Your task to perform on an android device: Open Google Chrome Image 0: 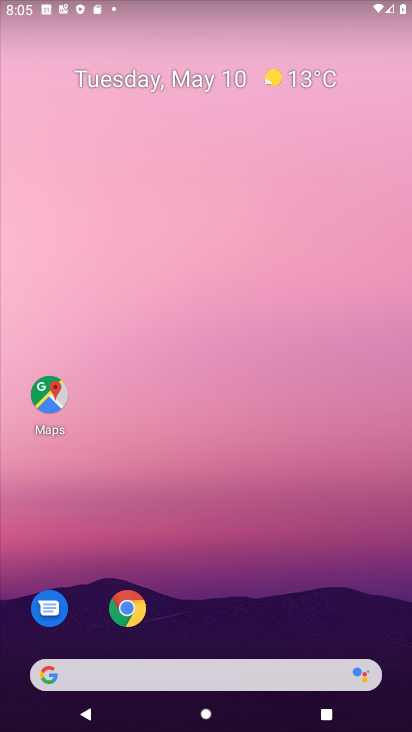
Step 0: drag from (194, 468) to (271, 175)
Your task to perform on an android device: Open Google Chrome Image 1: 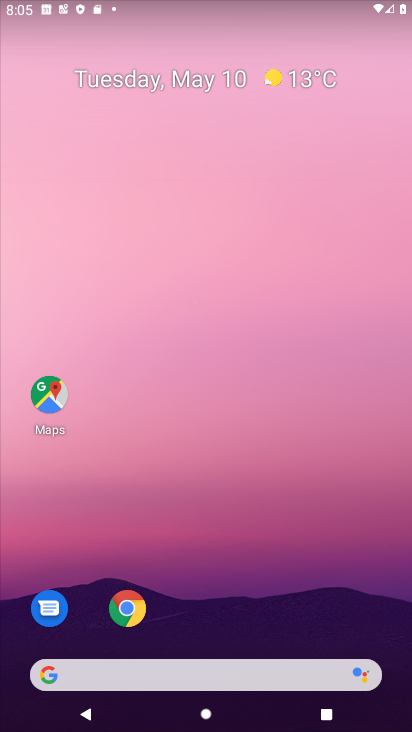
Step 1: drag from (204, 681) to (330, 248)
Your task to perform on an android device: Open Google Chrome Image 2: 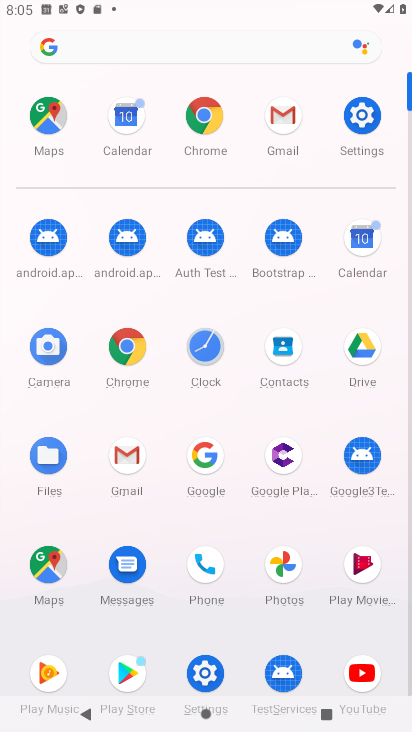
Step 2: click (202, 125)
Your task to perform on an android device: Open Google Chrome Image 3: 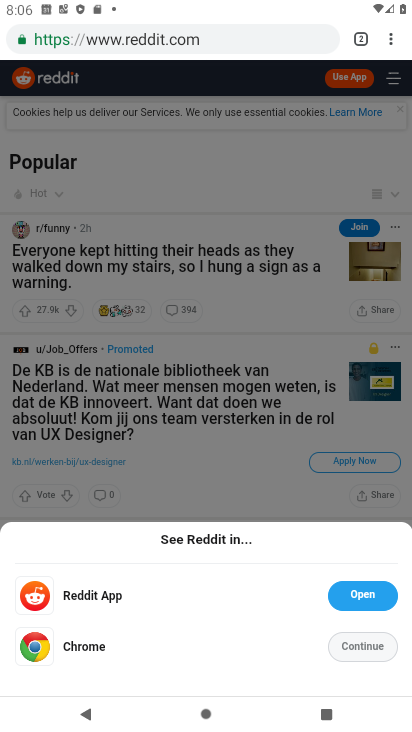
Step 3: task complete